Your task to perform on an android device: Go to Maps Image 0: 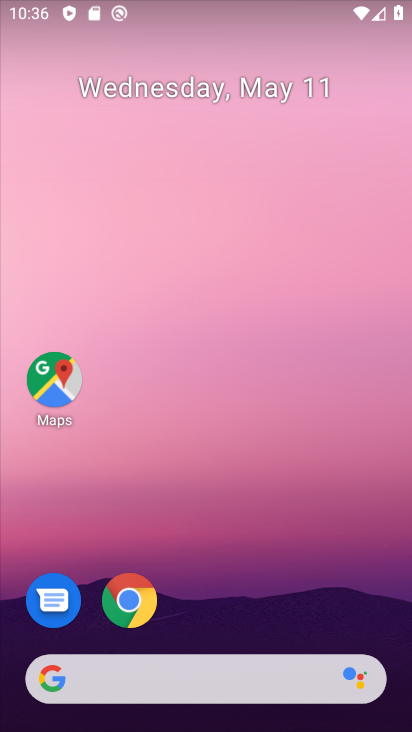
Step 0: drag from (342, 555) to (388, 77)
Your task to perform on an android device: Go to Maps Image 1: 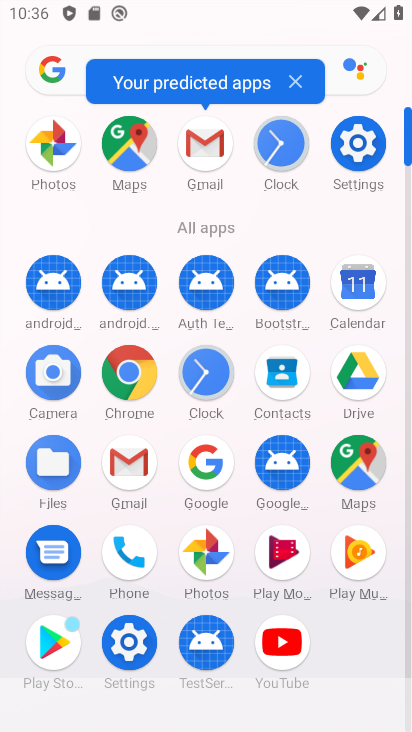
Step 1: click (129, 149)
Your task to perform on an android device: Go to Maps Image 2: 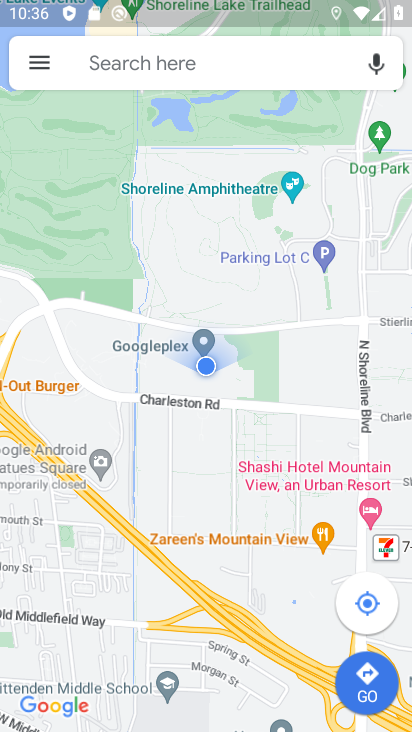
Step 2: task complete